Your task to perform on an android device: add a contact in the contacts app Image 0: 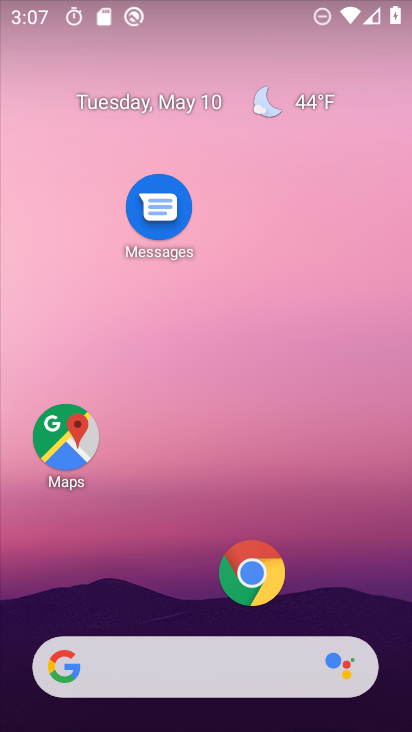
Step 0: drag from (190, 608) to (264, 202)
Your task to perform on an android device: add a contact in the contacts app Image 1: 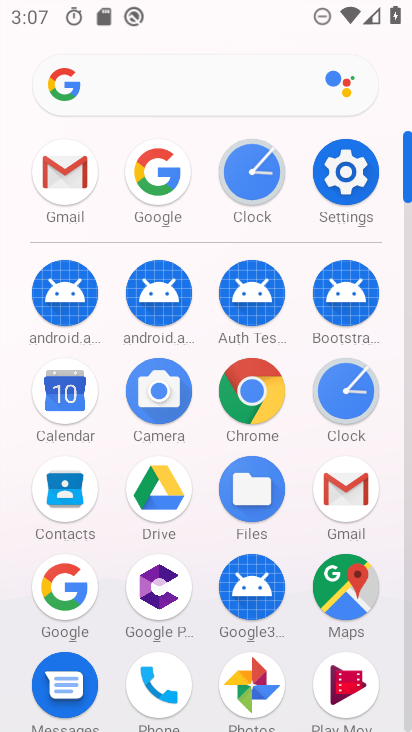
Step 1: click (55, 496)
Your task to perform on an android device: add a contact in the contacts app Image 2: 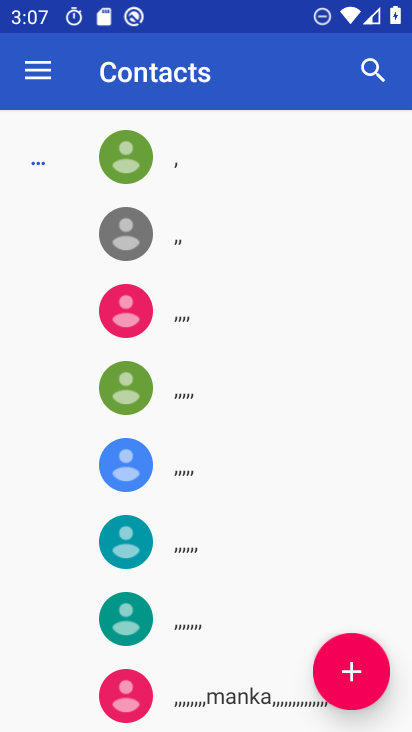
Step 2: click (358, 667)
Your task to perform on an android device: add a contact in the contacts app Image 3: 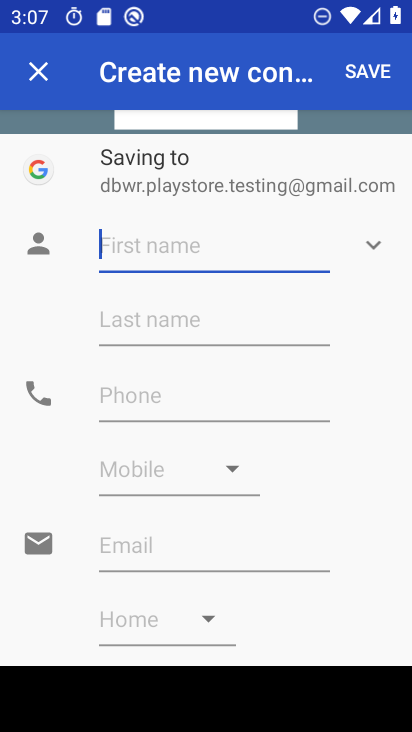
Step 3: type "vjvu"
Your task to perform on an android device: add a contact in the contacts app Image 4: 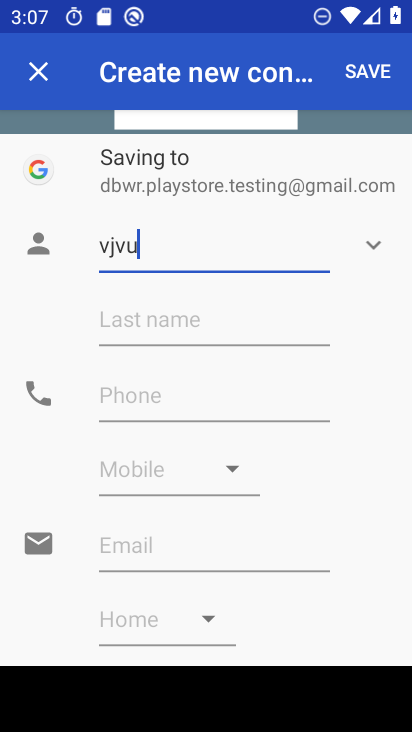
Step 4: click (147, 394)
Your task to perform on an android device: add a contact in the contacts app Image 5: 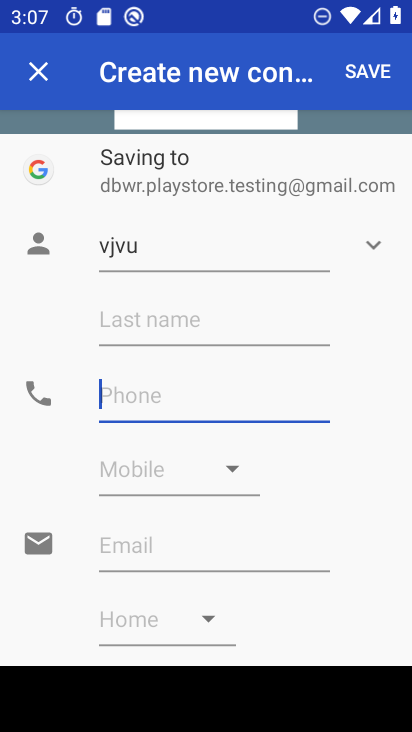
Step 5: type "9877576479"
Your task to perform on an android device: add a contact in the contacts app Image 6: 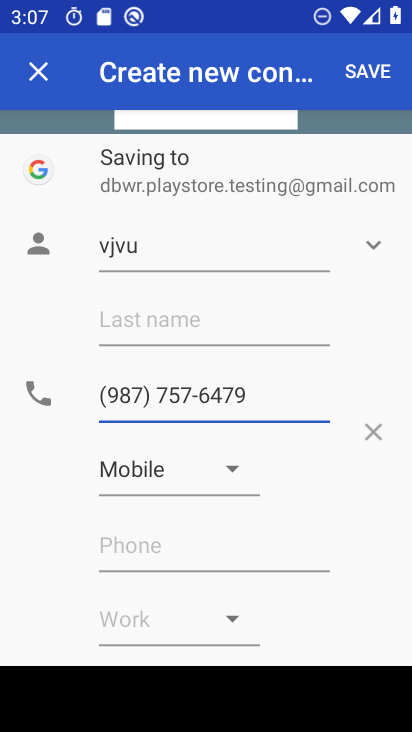
Step 6: click (366, 66)
Your task to perform on an android device: add a contact in the contacts app Image 7: 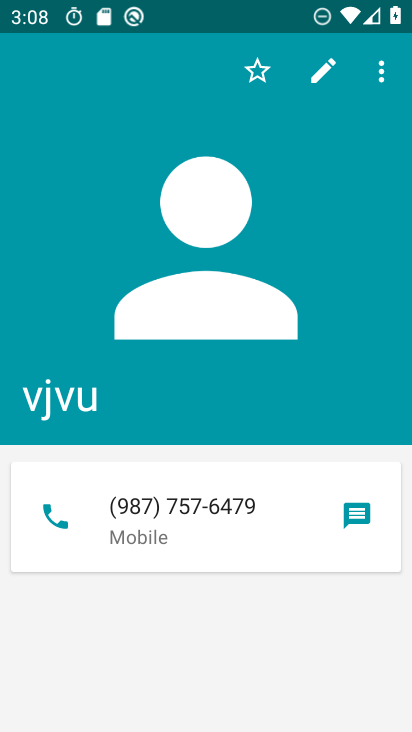
Step 7: task complete